Your task to perform on an android device: allow notifications from all sites in the chrome app Image 0: 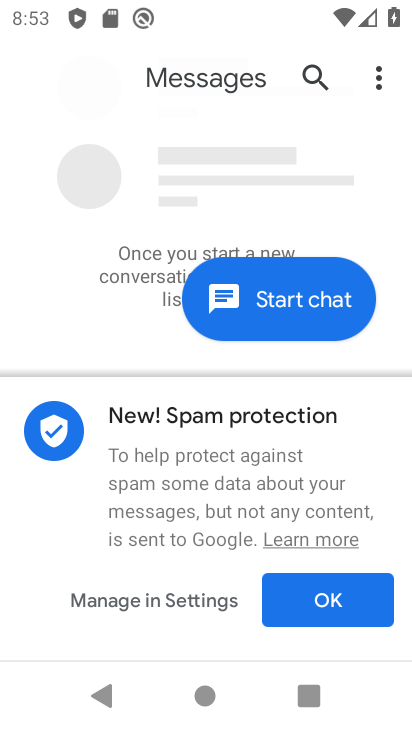
Step 0: press home button
Your task to perform on an android device: allow notifications from all sites in the chrome app Image 1: 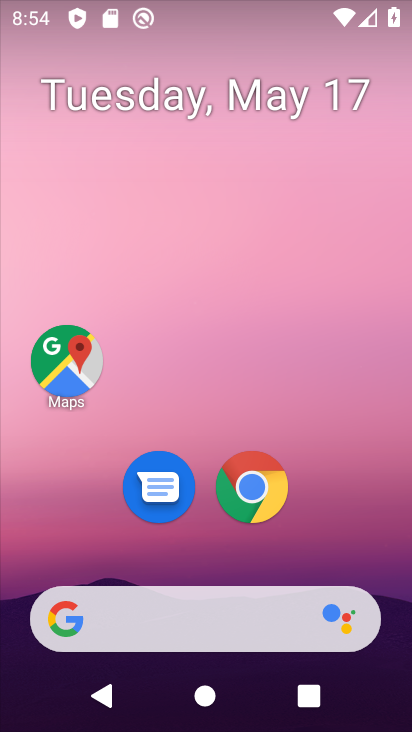
Step 1: drag from (252, 634) to (260, 244)
Your task to perform on an android device: allow notifications from all sites in the chrome app Image 2: 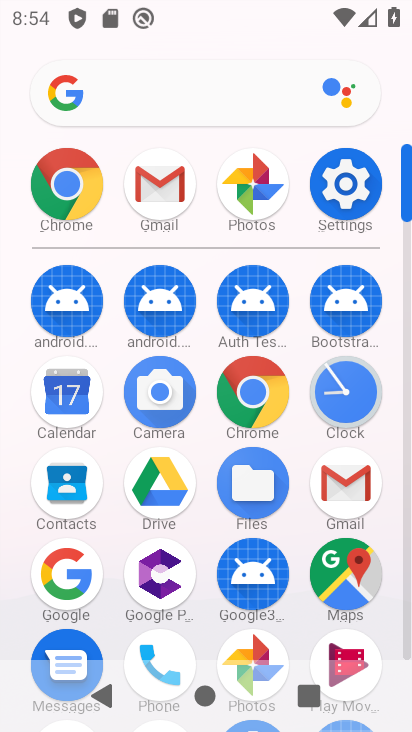
Step 2: click (73, 177)
Your task to perform on an android device: allow notifications from all sites in the chrome app Image 3: 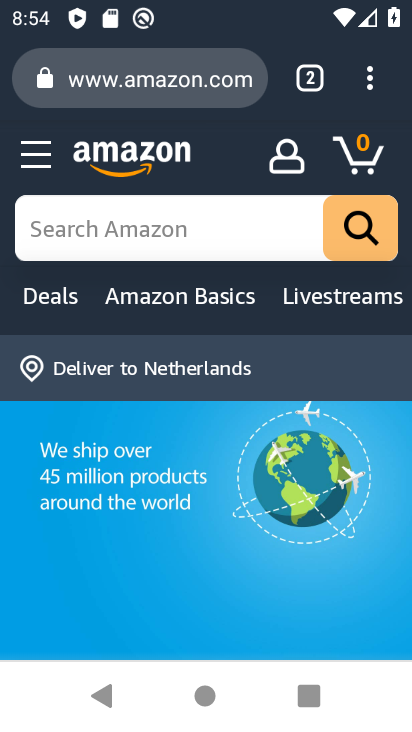
Step 3: click (368, 81)
Your task to perform on an android device: allow notifications from all sites in the chrome app Image 4: 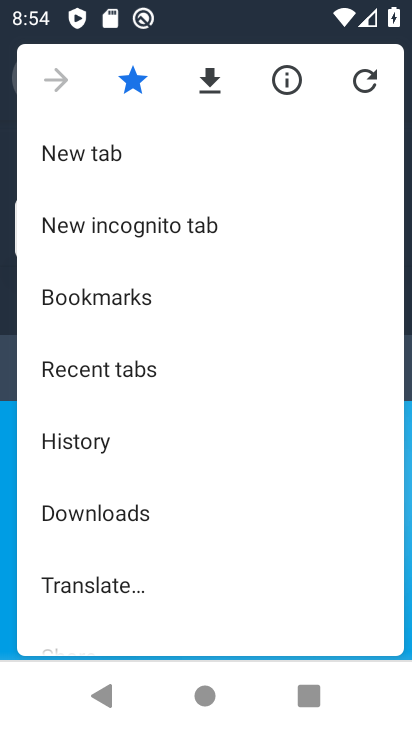
Step 4: drag from (140, 369) to (173, 248)
Your task to perform on an android device: allow notifications from all sites in the chrome app Image 5: 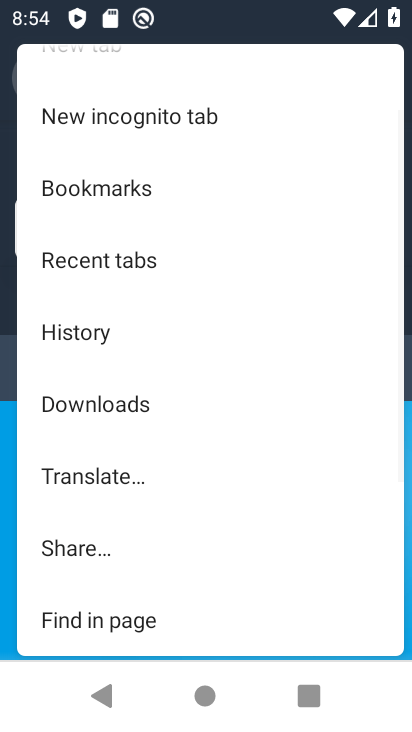
Step 5: drag from (184, 544) to (186, 346)
Your task to perform on an android device: allow notifications from all sites in the chrome app Image 6: 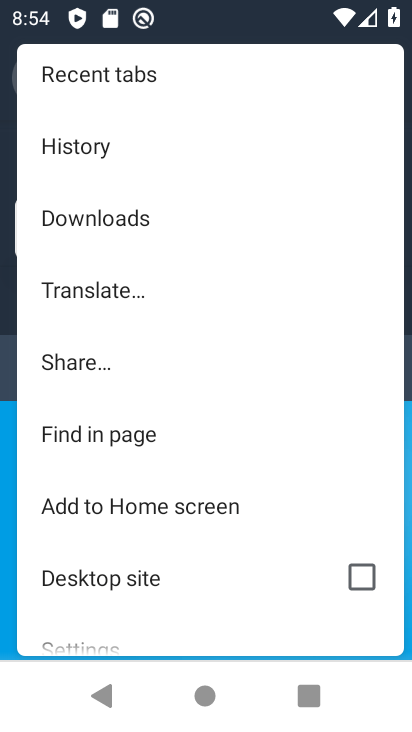
Step 6: drag from (122, 550) to (146, 475)
Your task to perform on an android device: allow notifications from all sites in the chrome app Image 7: 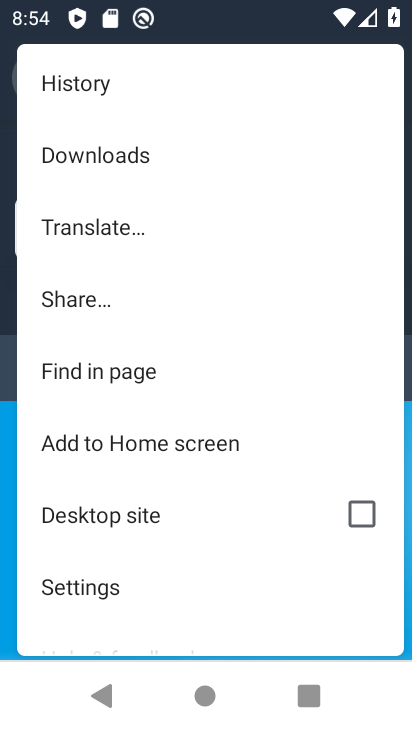
Step 7: click (103, 582)
Your task to perform on an android device: allow notifications from all sites in the chrome app Image 8: 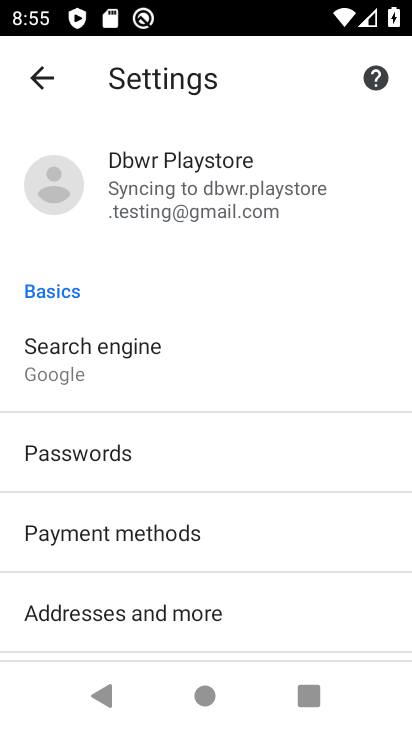
Step 8: drag from (115, 563) to (144, 315)
Your task to perform on an android device: allow notifications from all sites in the chrome app Image 9: 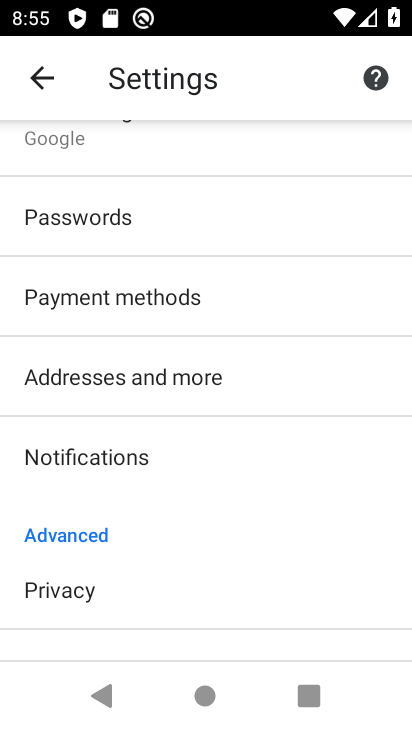
Step 9: drag from (148, 514) to (168, 265)
Your task to perform on an android device: allow notifications from all sites in the chrome app Image 10: 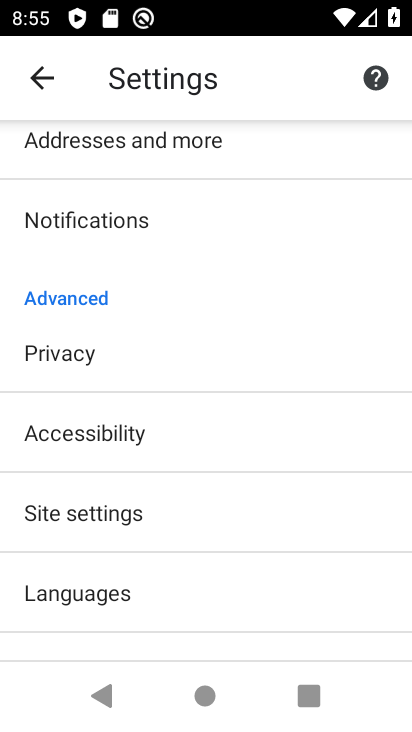
Step 10: click (100, 507)
Your task to perform on an android device: allow notifications from all sites in the chrome app Image 11: 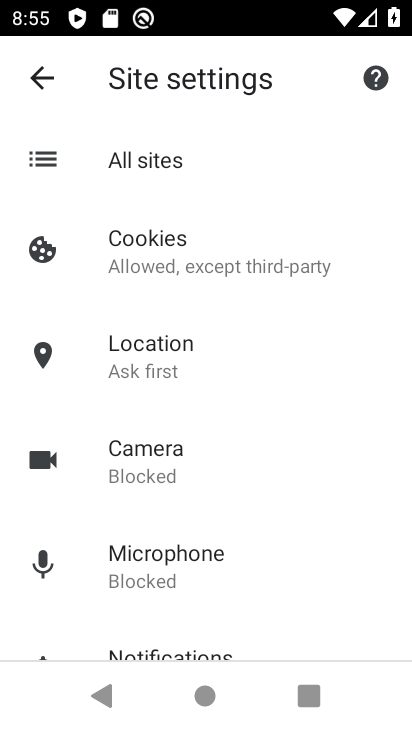
Step 11: click (155, 647)
Your task to perform on an android device: allow notifications from all sites in the chrome app Image 12: 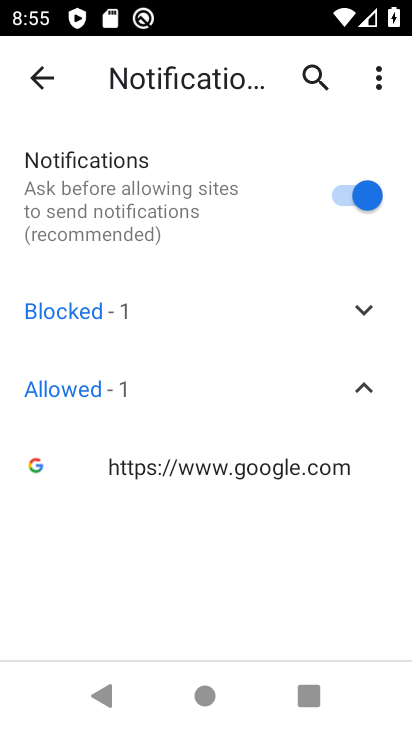
Step 12: click (324, 202)
Your task to perform on an android device: allow notifications from all sites in the chrome app Image 13: 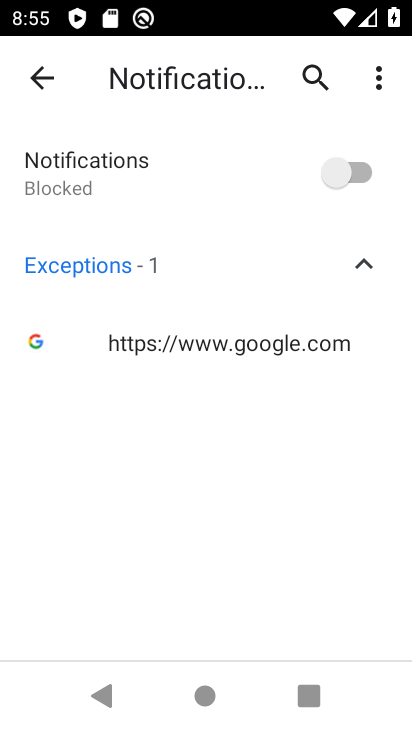
Step 13: click (341, 173)
Your task to perform on an android device: allow notifications from all sites in the chrome app Image 14: 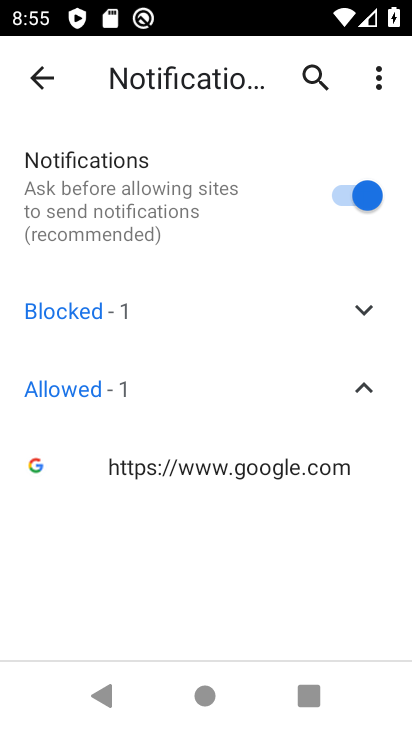
Step 14: task complete